Your task to perform on an android device: Open ESPN.com Image 0: 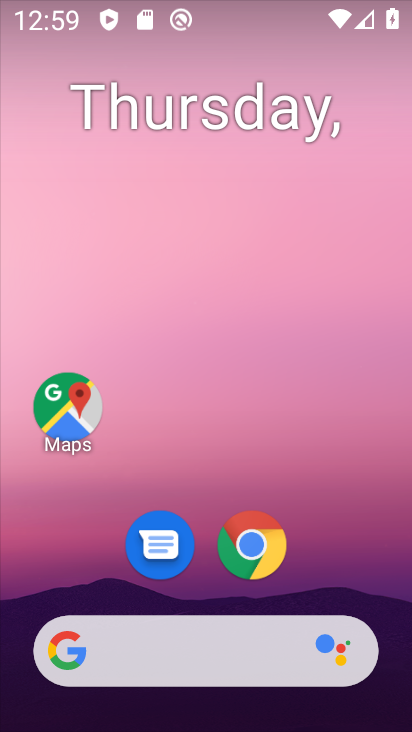
Step 0: click (262, 546)
Your task to perform on an android device: Open ESPN.com Image 1: 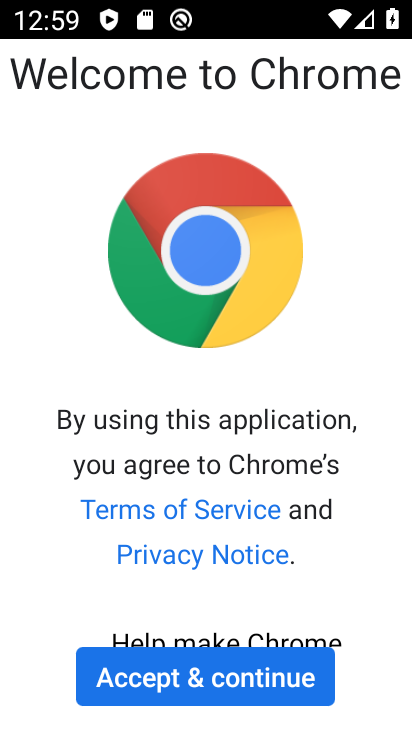
Step 1: click (197, 671)
Your task to perform on an android device: Open ESPN.com Image 2: 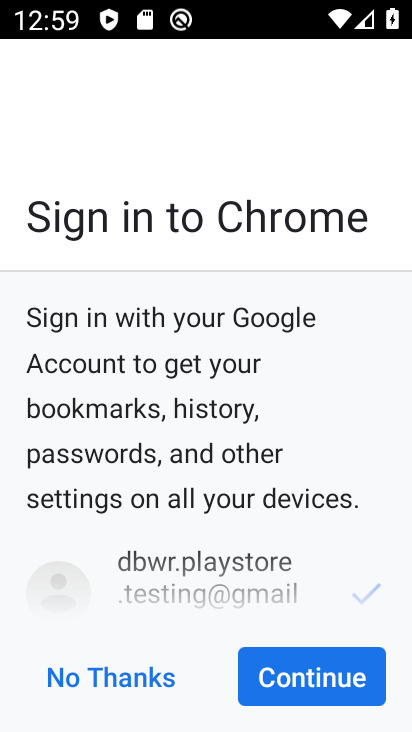
Step 2: click (269, 681)
Your task to perform on an android device: Open ESPN.com Image 3: 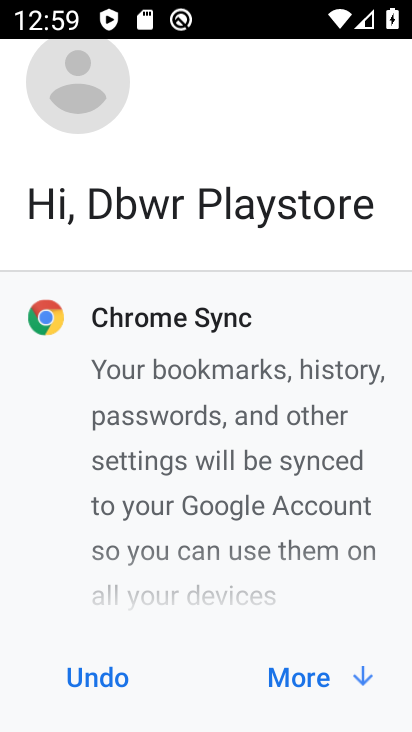
Step 3: click (280, 682)
Your task to perform on an android device: Open ESPN.com Image 4: 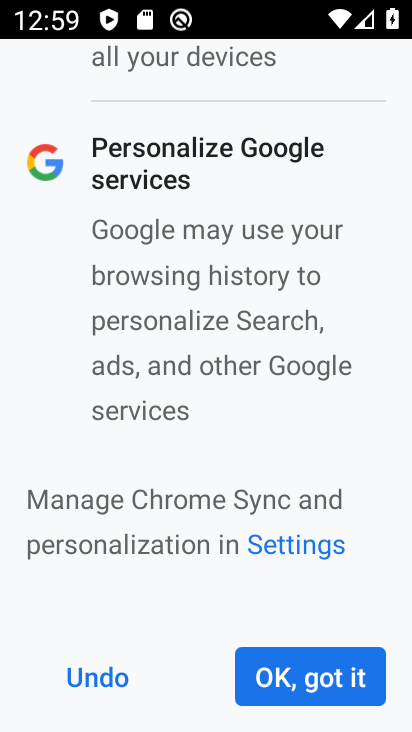
Step 4: click (291, 695)
Your task to perform on an android device: Open ESPN.com Image 5: 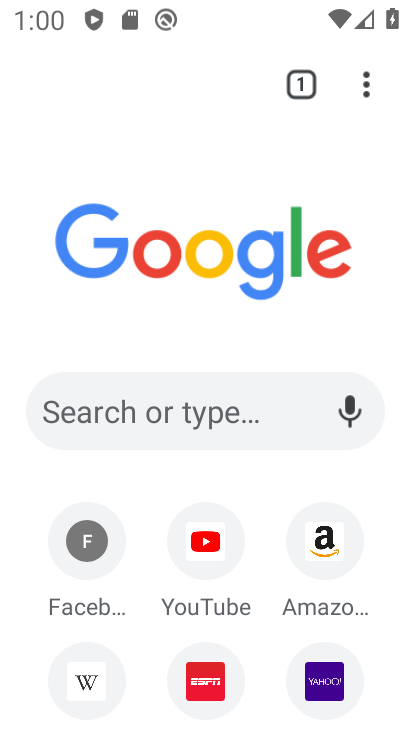
Step 5: click (227, 685)
Your task to perform on an android device: Open ESPN.com Image 6: 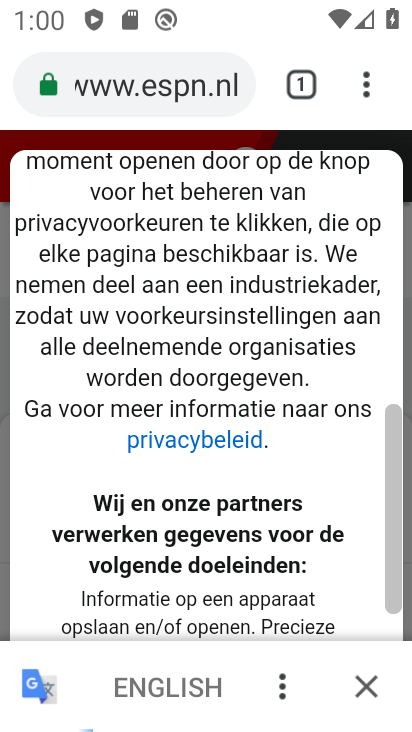
Step 6: task complete